Your task to perform on an android device: What's the weather today? Image 0: 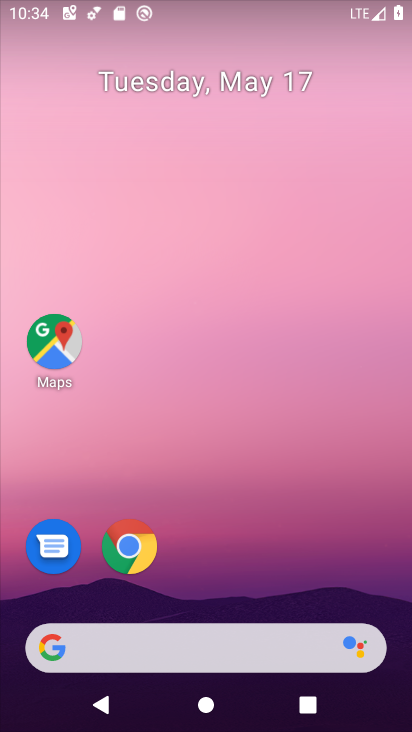
Step 0: click (202, 655)
Your task to perform on an android device: What's the weather today? Image 1: 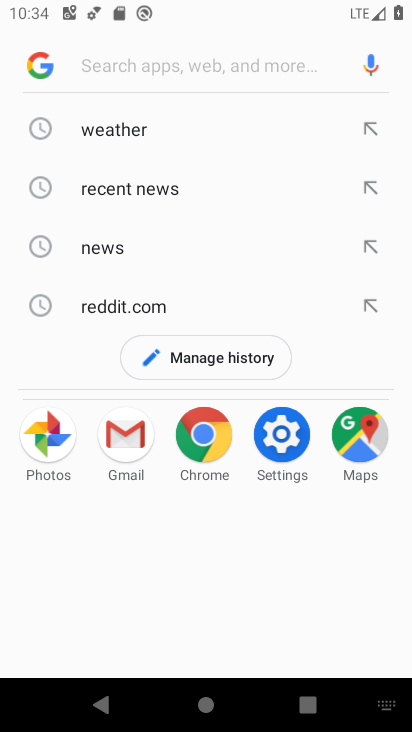
Step 1: click (136, 133)
Your task to perform on an android device: What's the weather today? Image 2: 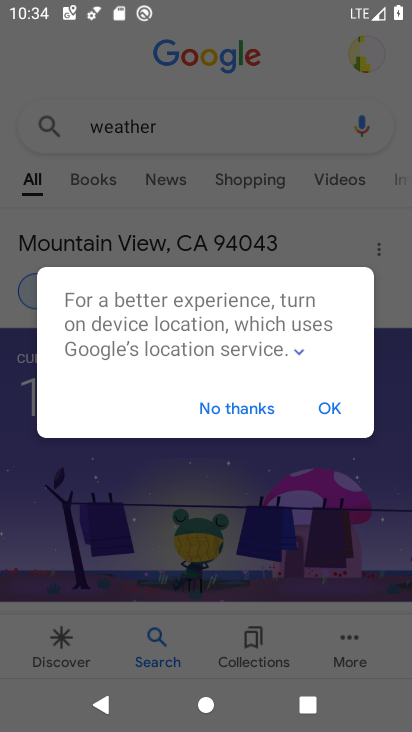
Step 2: click (231, 404)
Your task to perform on an android device: What's the weather today? Image 3: 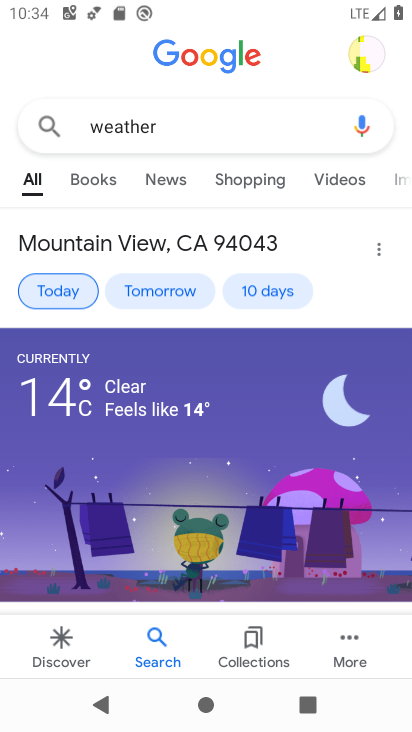
Step 3: task complete